Your task to perform on an android device: check google app version Image 0: 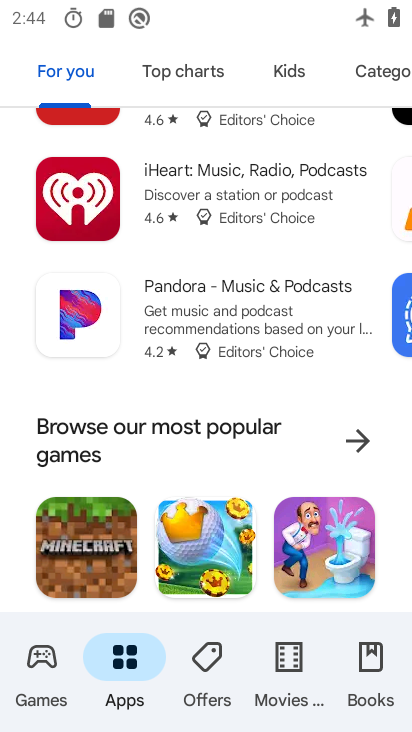
Step 0: press home button
Your task to perform on an android device: check google app version Image 1: 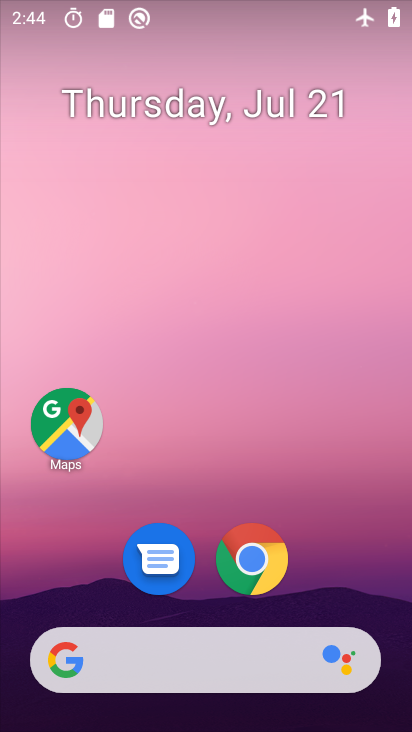
Step 1: drag from (359, 591) to (380, 50)
Your task to perform on an android device: check google app version Image 2: 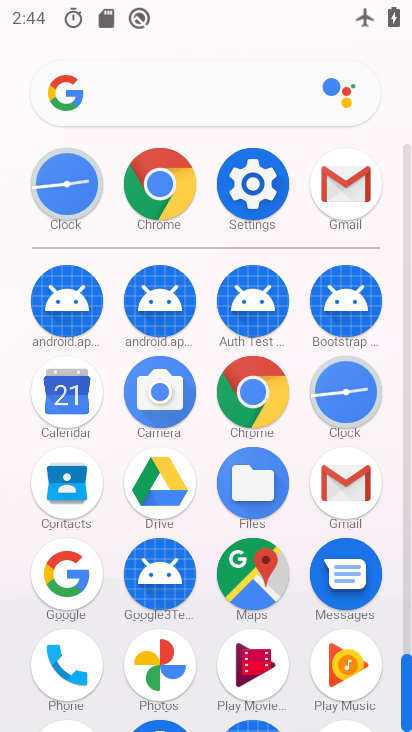
Step 2: click (74, 572)
Your task to perform on an android device: check google app version Image 3: 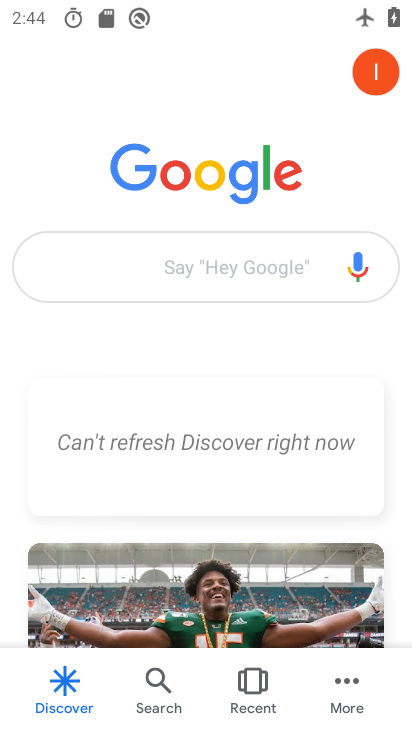
Step 3: click (341, 691)
Your task to perform on an android device: check google app version Image 4: 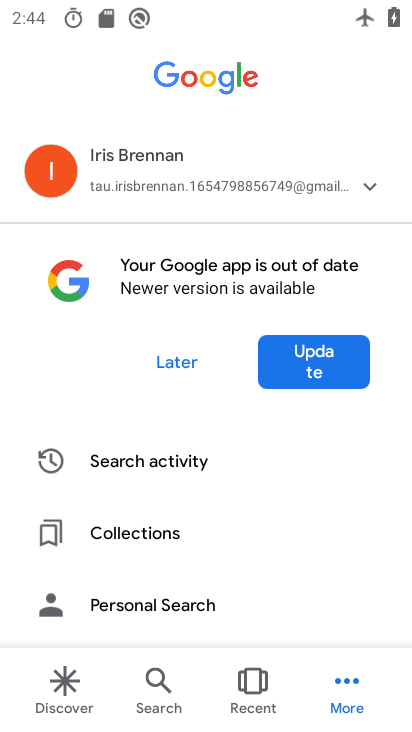
Step 4: drag from (317, 570) to (323, 453)
Your task to perform on an android device: check google app version Image 5: 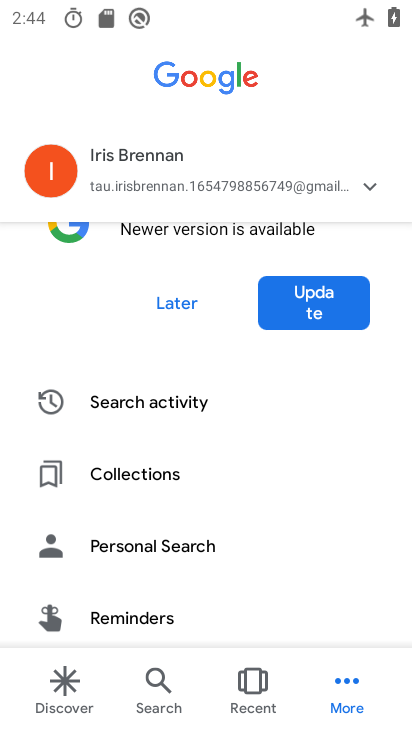
Step 5: drag from (310, 569) to (313, 440)
Your task to perform on an android device: check google app version Image 6: 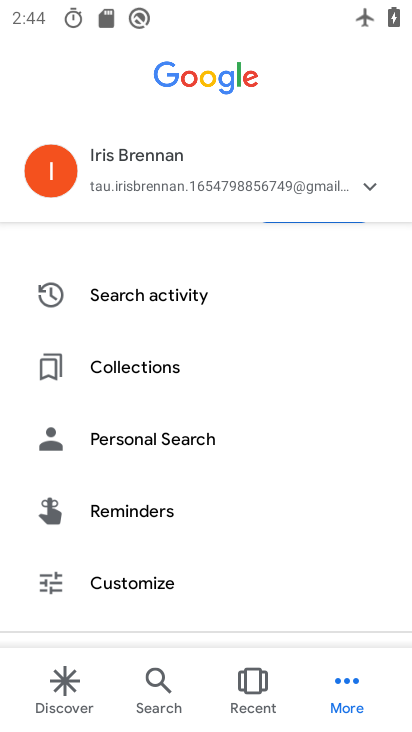
Step 6: drag from (306, 558) to (307, 411)
Your task to perform on an android device: check google app version Image 7: 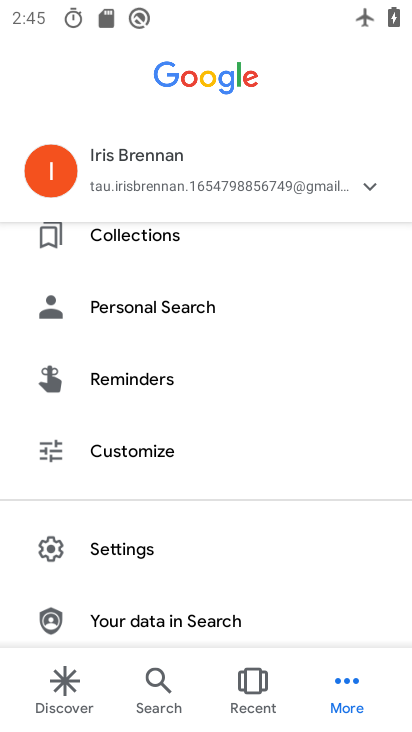
Step 7: click (193, 543)
Your task to perform on an android device: check google app version Image 8: 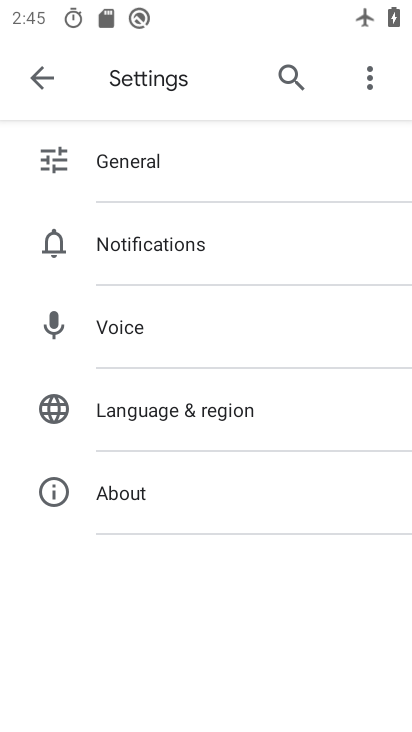
Step 8: click (213, 490)
Your task to perform on an android device: check google app version Image 9: 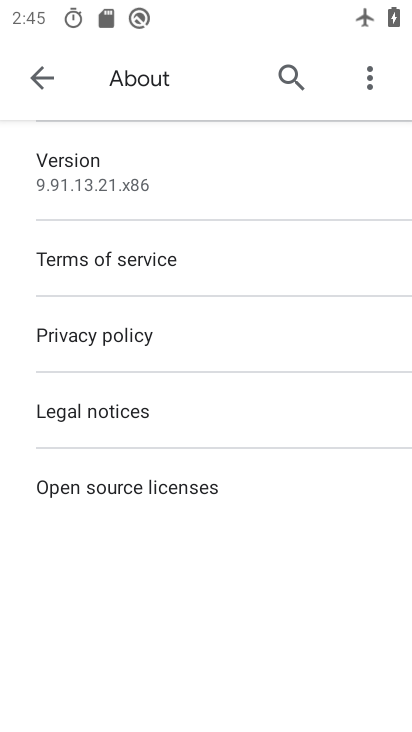
Step 9: task complete